Your task to perform on an android device: What's the weather? Image 0: 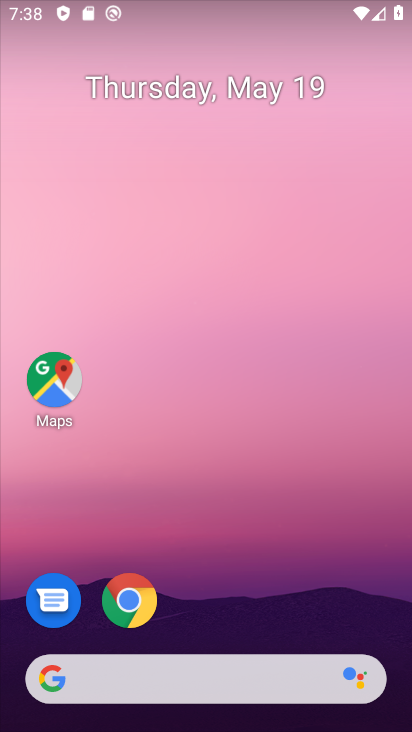
Step 0: click (135, 686)
Your task to perform on an android device: What's the weather? Image 1: 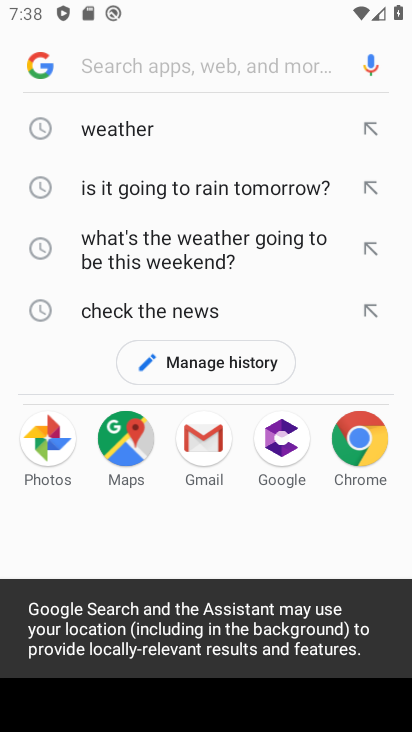
Step 1: click (97, 128)
Your task to perform on an android device: What's the weather? Image 2: 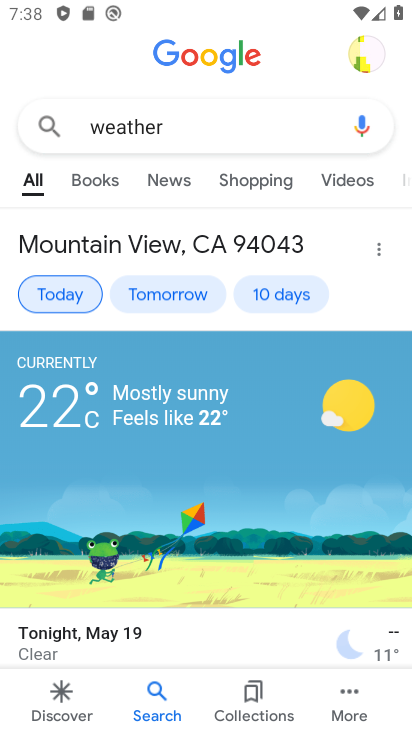
Step 2: task complete